Your task to perform on an android device: Open Wikipedia Image 0: 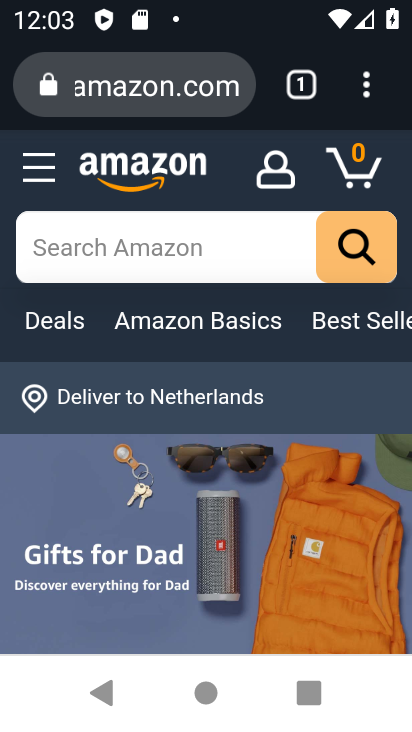
Step 0: press back button
Your task to perform on an android device: Open Wikipedia Image 1: 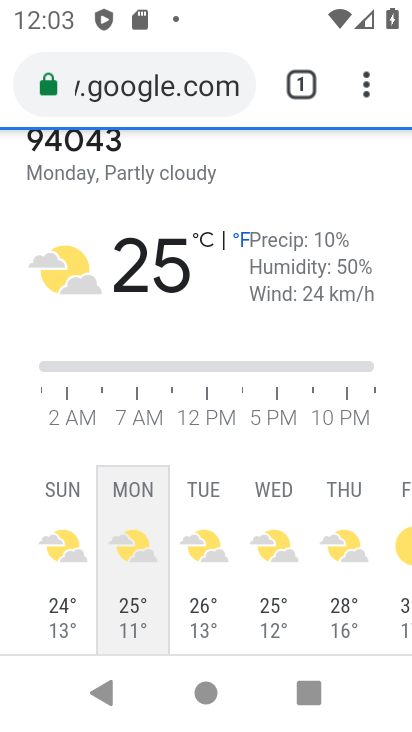
Step 1: click (178, 96)
Your task to perform on an android device: Open Wikipedia Image 2: 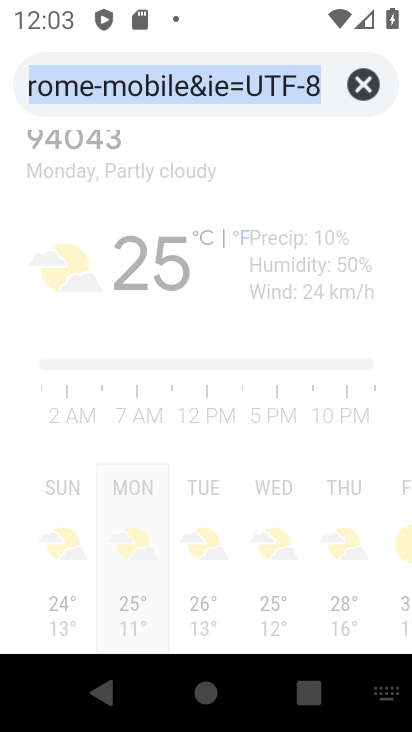
Step 2: click (364, 83)
Your task to perform on an android device: Open Wikipedia Image 3: 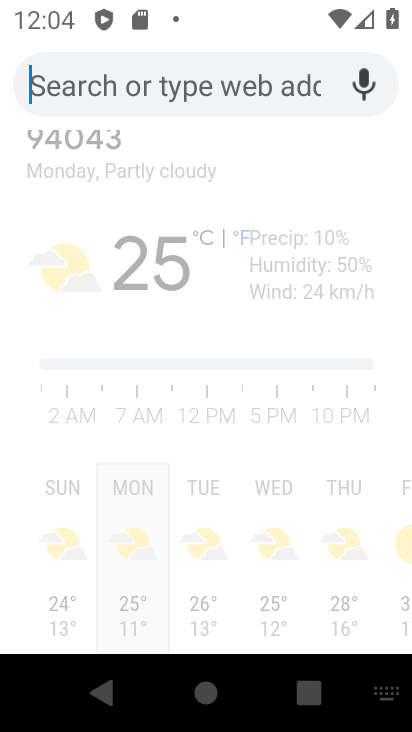
Step 3: type "Wikipedia"
Your task to perform on an android device: Open Wikipedia Image 4: 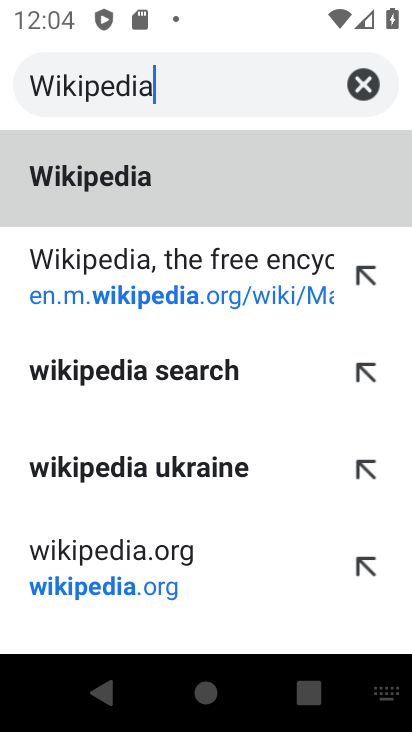
Step 4: type ""
Your task to perform on an android device: Open Wikipedia Image 5: 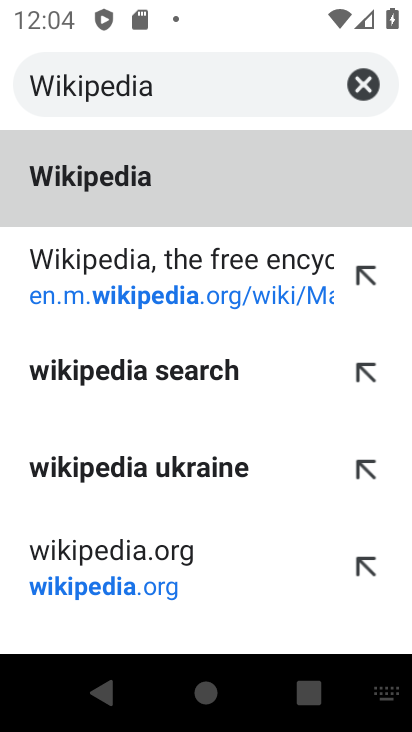
Step 5: click (153, 275)
Your task to perform on an android device: Open Wikipedia Image 6: 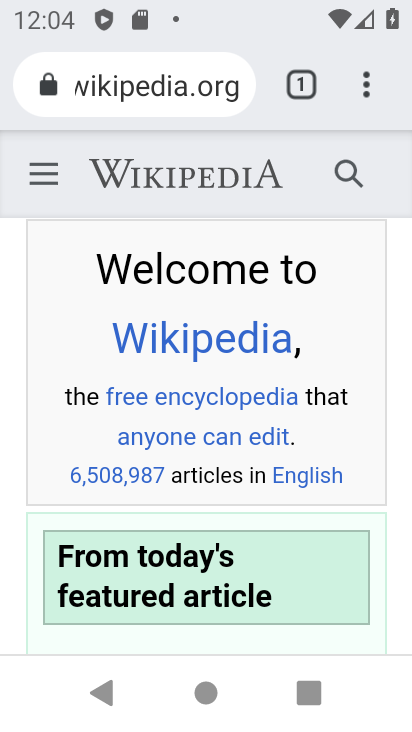
Step 6: task complete